Your task to perform on an android device: open app "Firefox Browser" (install if not already installed) Image 0: 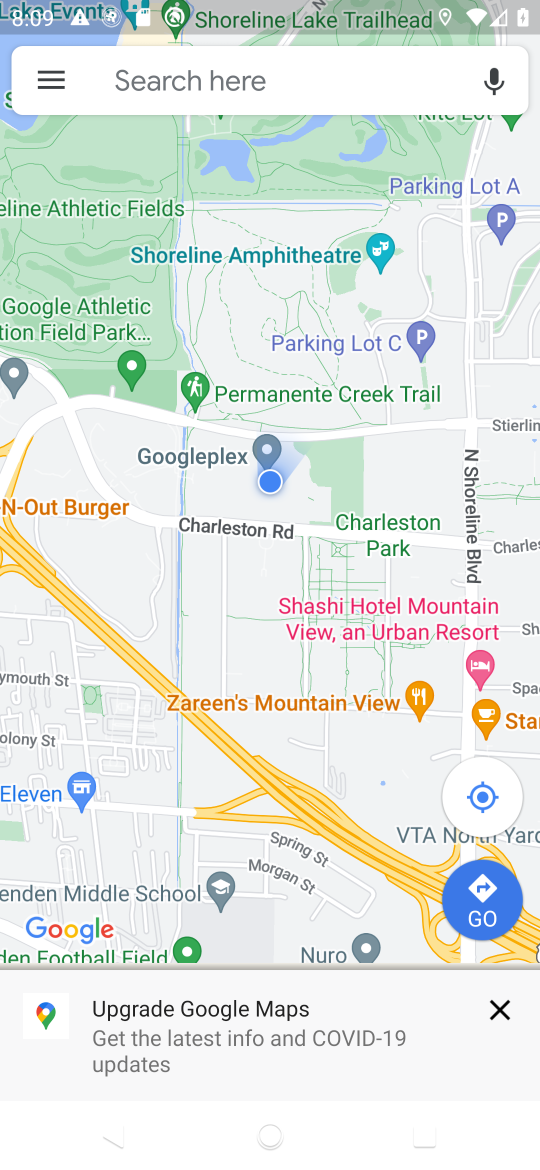
Step 0: press home button
Your task to perform on an android device: open app "Firefox Browser" (install if not already installed) Image 1: 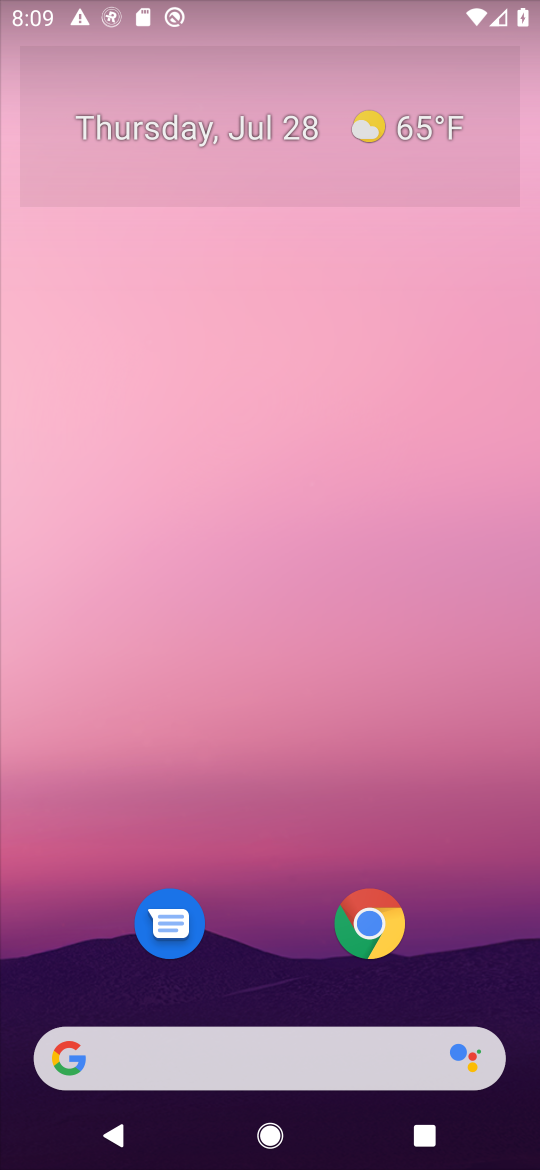
Step 1: drag from (448, 899) to (254, 7)
Your task to perform on an android device: open app "Firefox Browser" (install if not already installed) Image 2: 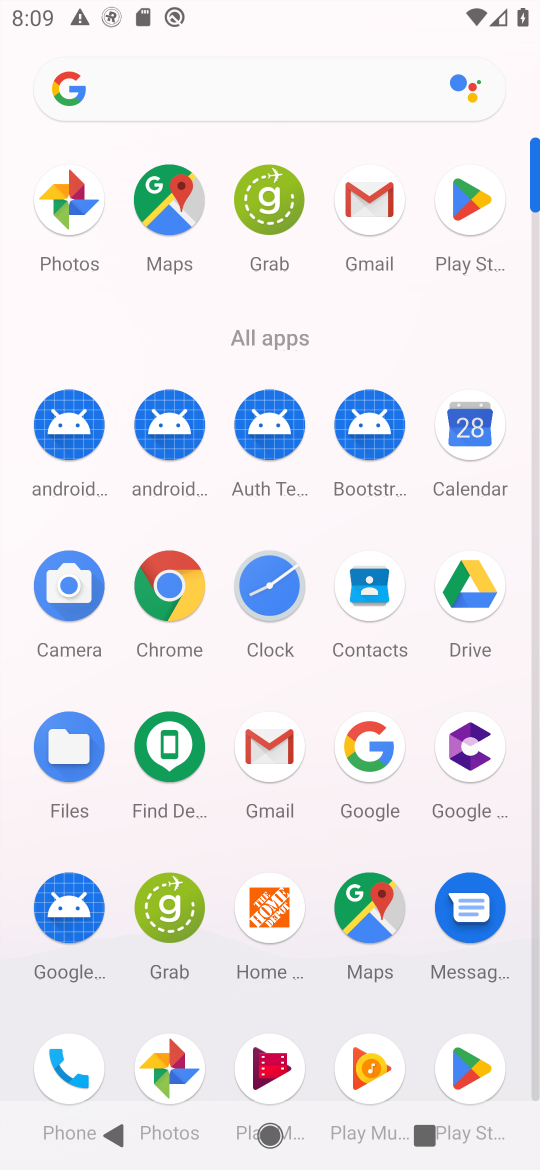
Step 2: click (469, 181)
Your task to perform on an android device: open app "Firefox Browser" (install if not already installed) Image 3: 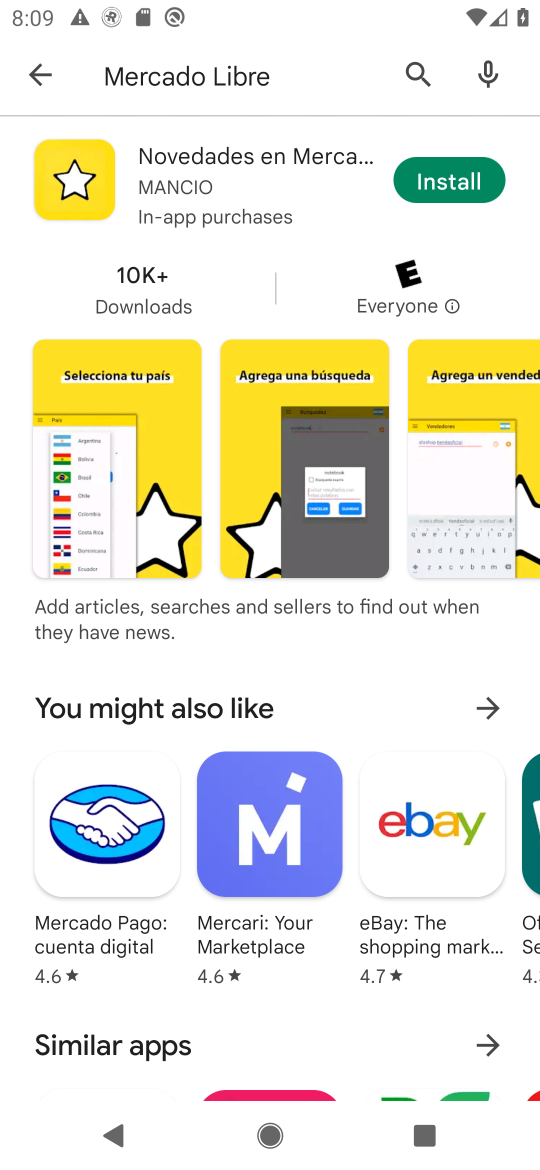
Step 3: click (208, 69)
Your task to perform on an android device: open app "Firefox Browser" (install if not already installed) Image 4: 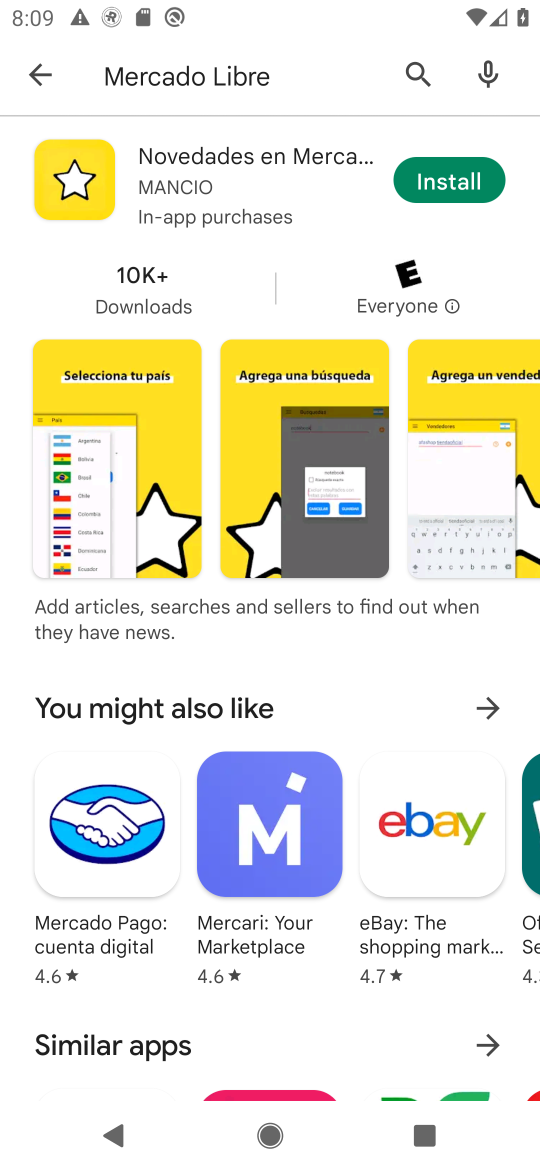
Step 4: click (212, 68)
Your task to perform on an android device: open app "Firefox Browser" (install if not already installed) Image 5: 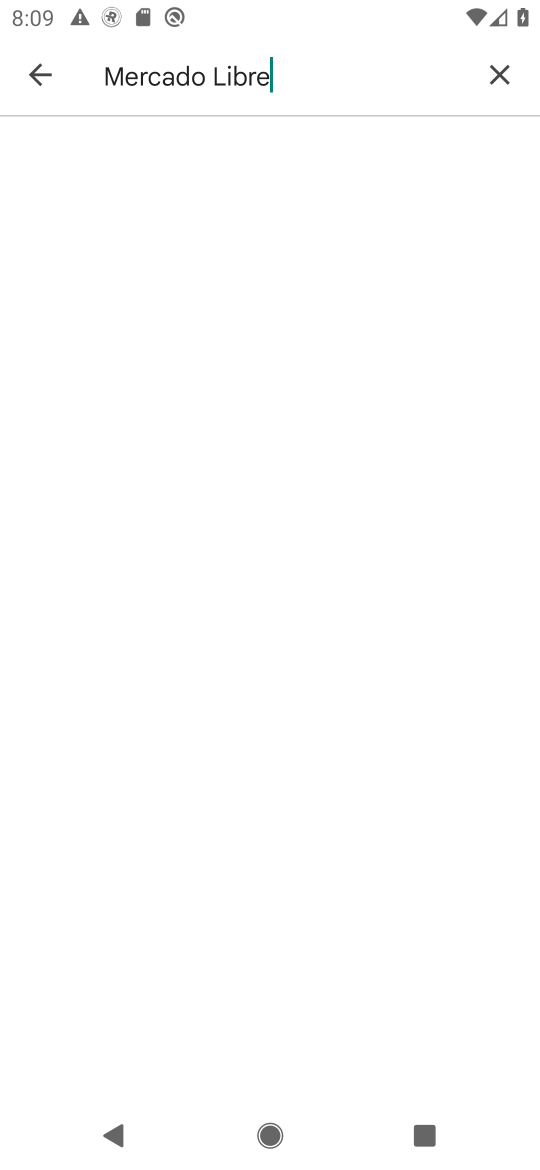
Step 5: click (212, 68)
Your task to perform on an android device: open app "Firefox Browser" (install if not already installed) Image 6: 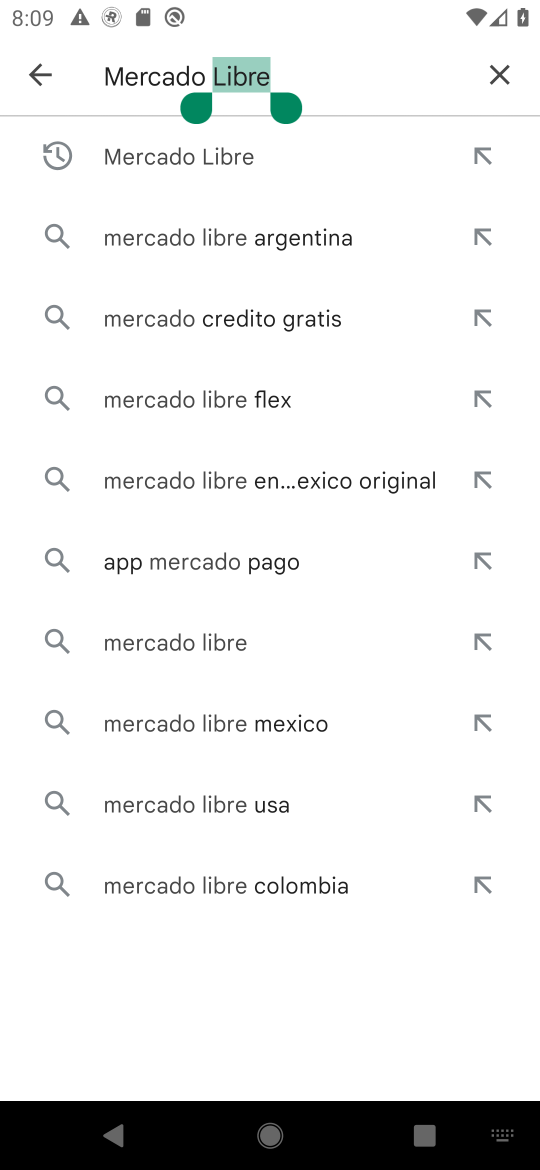
Step 6: click (499, 67)
Your task to perform on an android device: open app "Firefox Browser" (install if not already installed) Image 7: 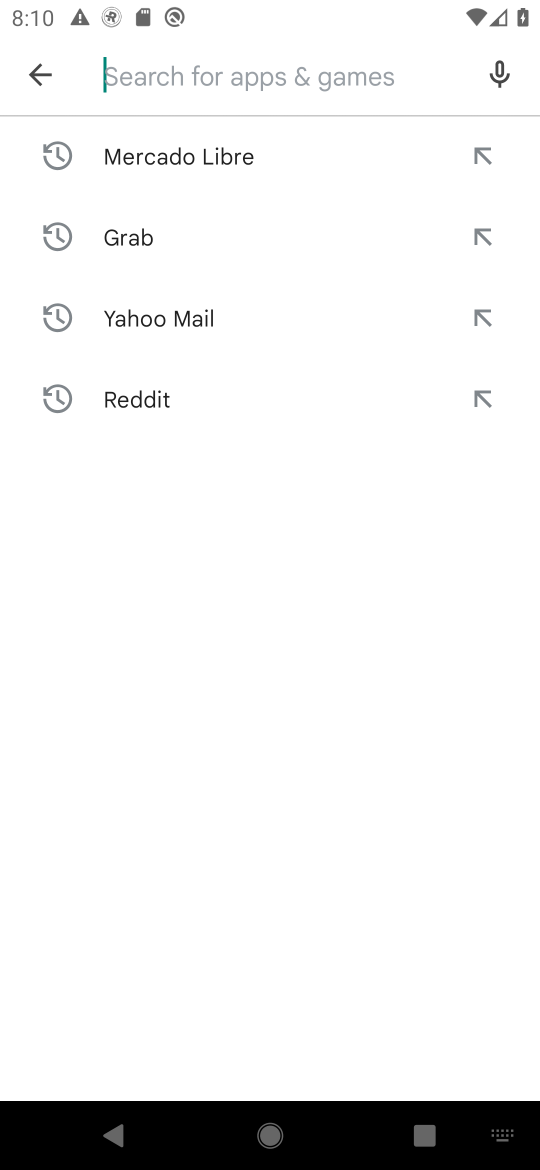
Step 7: type "Firefox Browser"
Your task to perform on an android device: open app "Firefox Browser" (install if not already installed) Image 8: 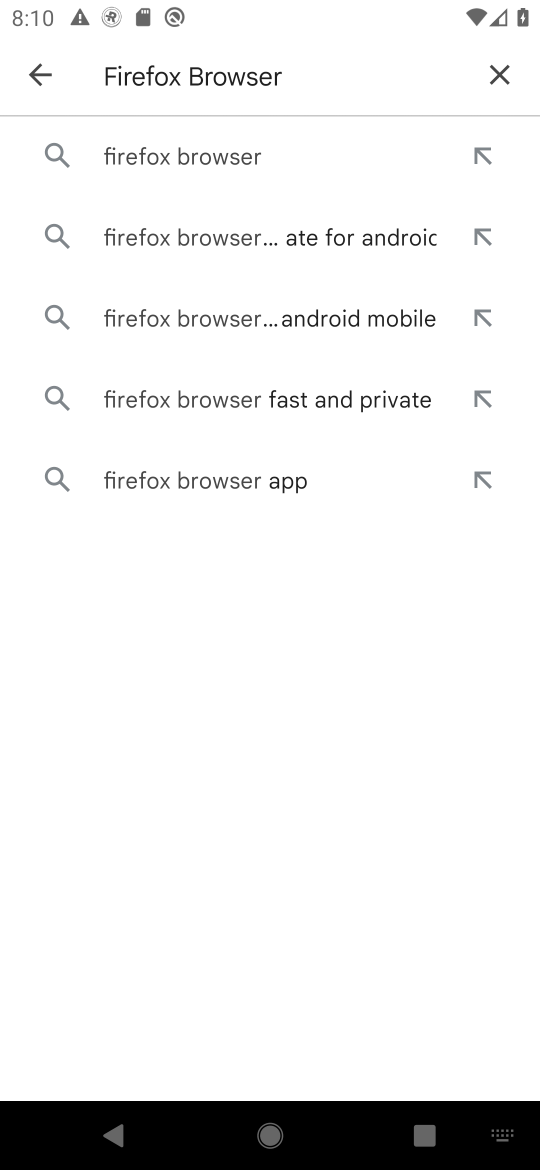
Step 8: press enter
Your task to perform on an android device: open app "Firefox Browser" (install if not already installed) Image 9: 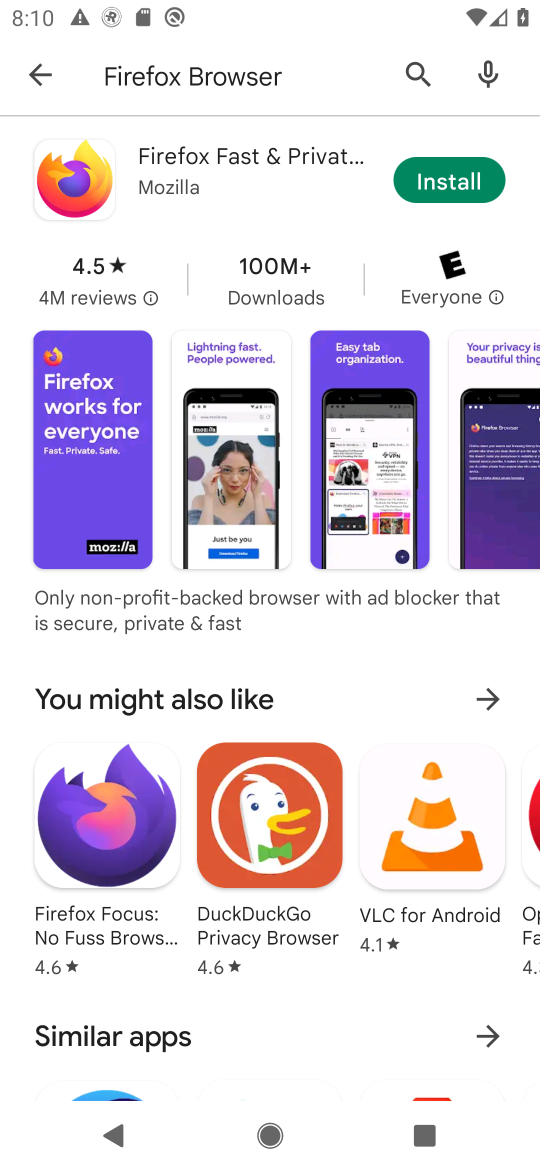
Step 9: click (481, 175)
Your task to perform on an android device: open app "Firefox Browser" (install if not already installed) Image 10: 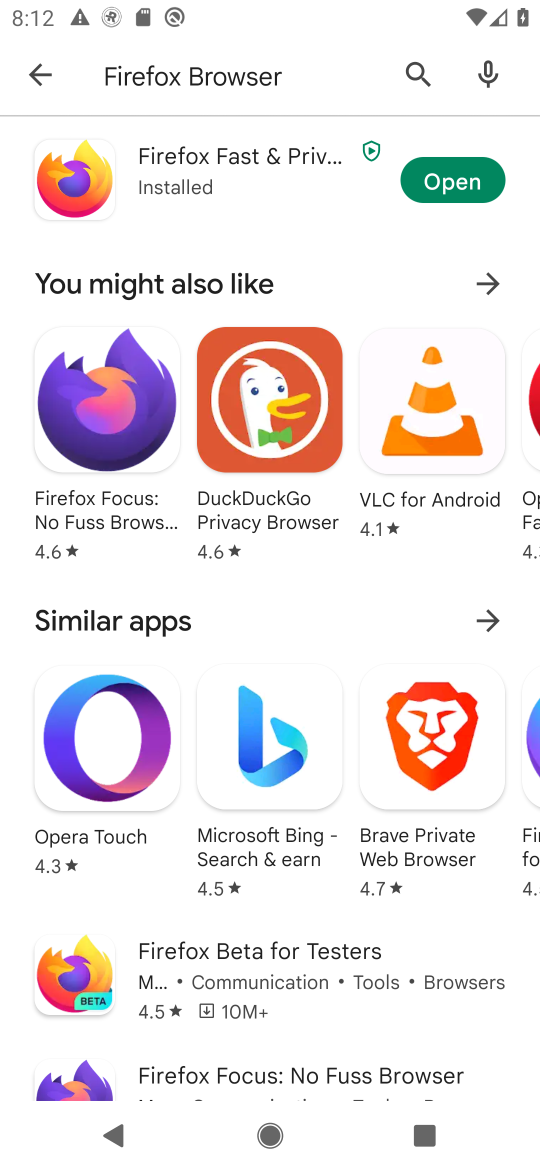
Step 10: click (445, 187)
Your task to perform on an android device: open app "Firefox Browser" (install if not already installed) Image 11: 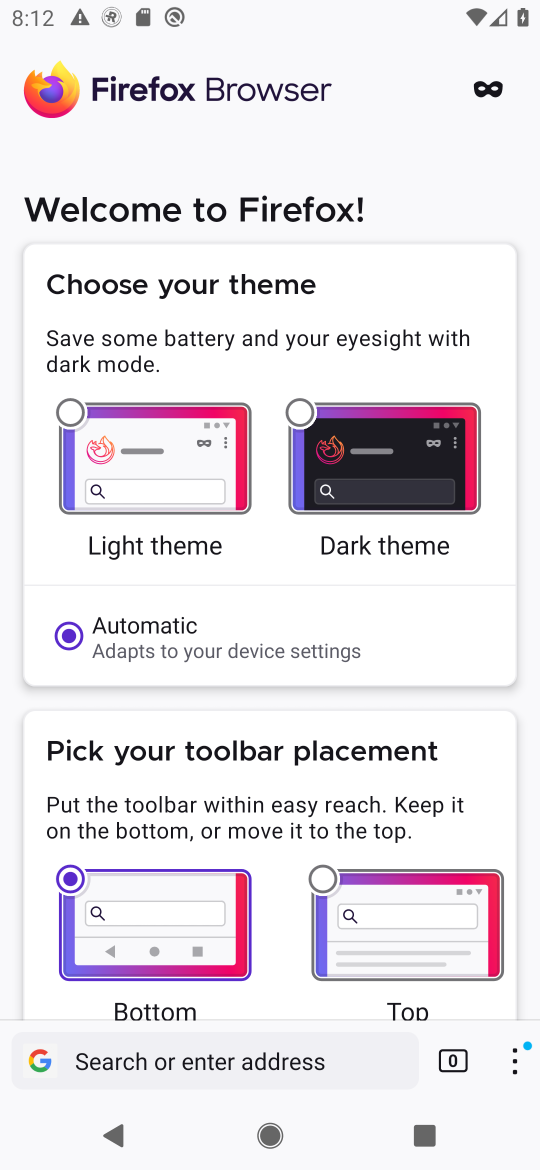
Step 11: task complete